Your task to perform on an android device: Open network settings Image 0: 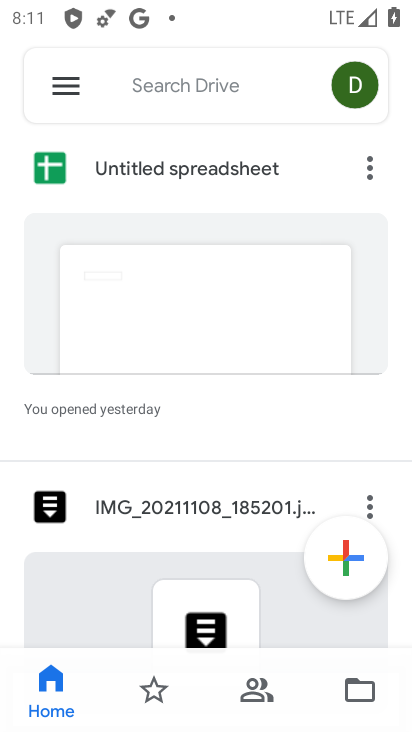
Step 0: press back button
Your task to perform on an android device: Open network settings Image 1: 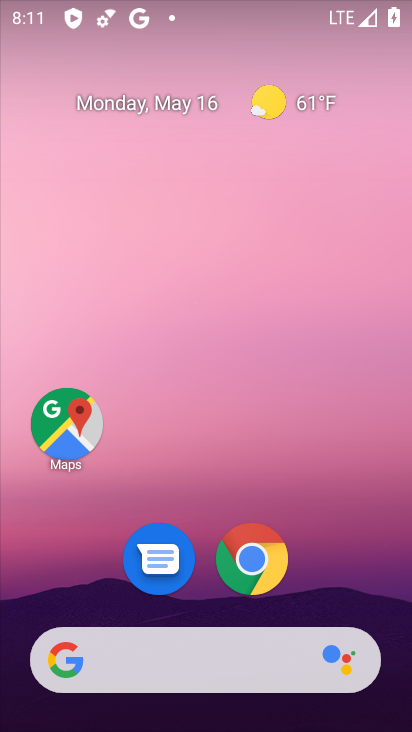
Step 1: drag from (206, 593) to (303, 16)
Your task to perform on an android device: Open network settings Image 2: 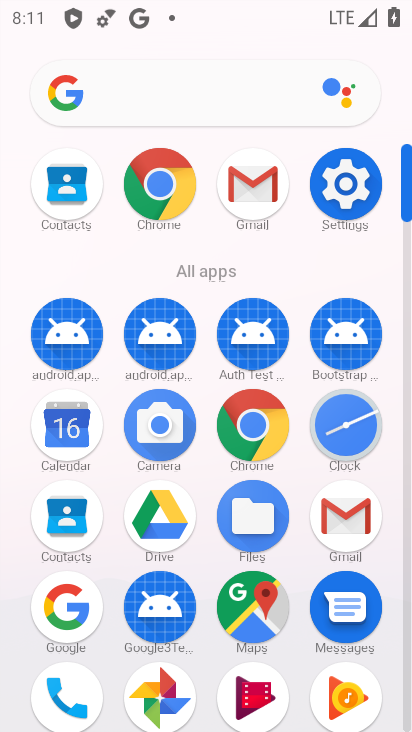
Step 2: click (351, 178)
Your task to perform on an android device: Open network settings Image 3: 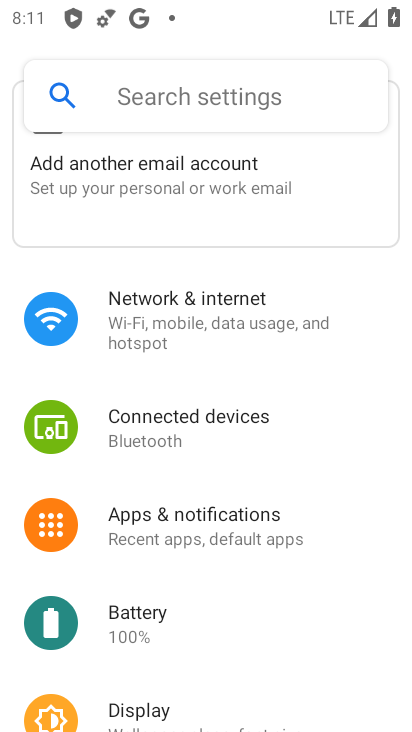
Step 3: click (183, 301)
Your task to perform on an android device: Open network settings Image 4: 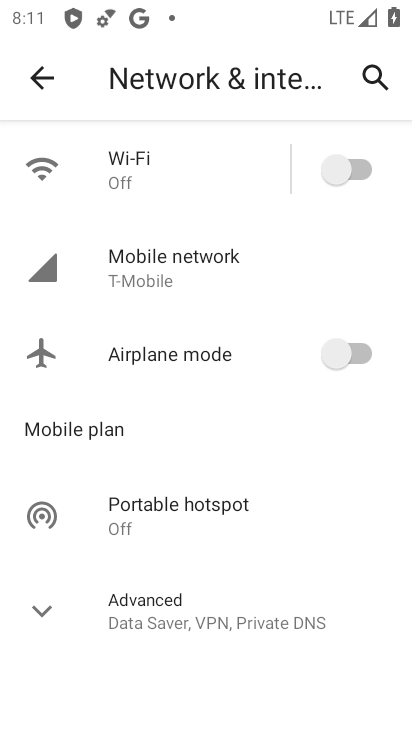
Step 4: task complete